Your task to perform on an android device: show emergency info Image 0: 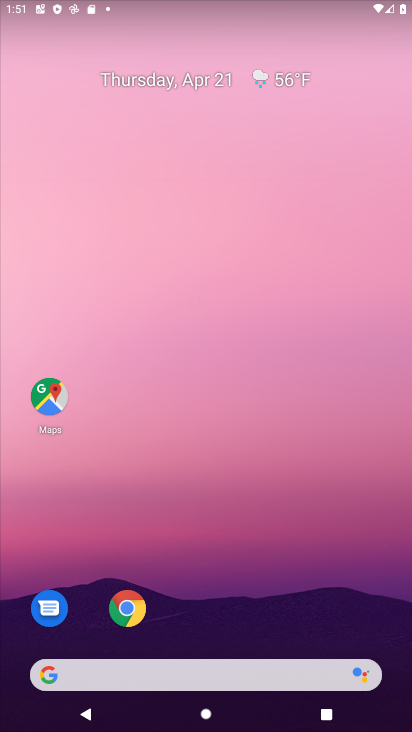
Step 0: drag from (247, 323) to (240, 76)
Your task to perform on an android device: show emergency info Image 1: 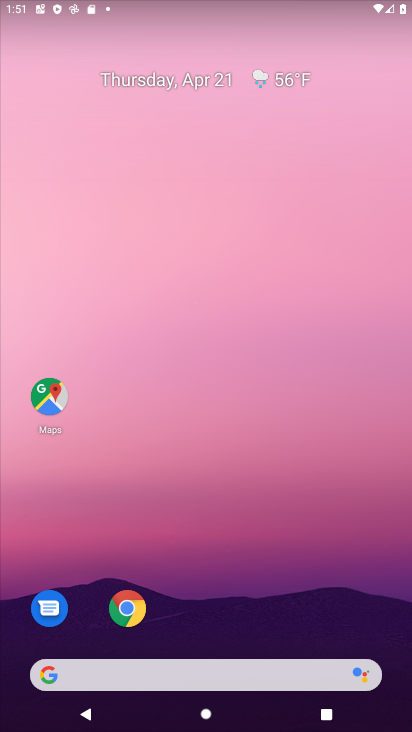
Step 1: drag from (286, 422) to (279, 0)
Your task to perform on an android device: show emergency info Image 2: 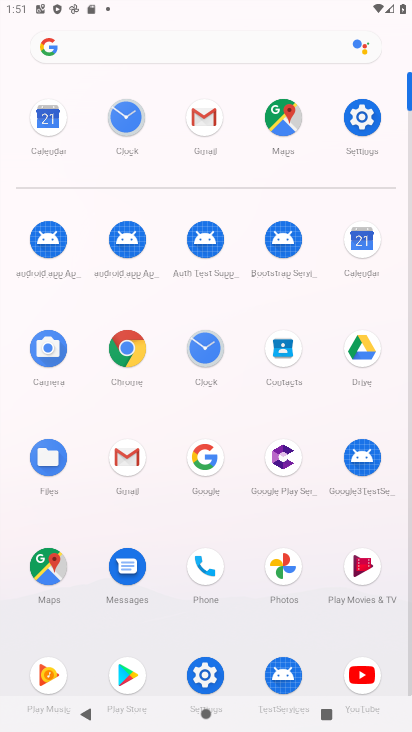
Step 2: click (354, 118)
Your task to perform on an android device: show emergency info Image 3: 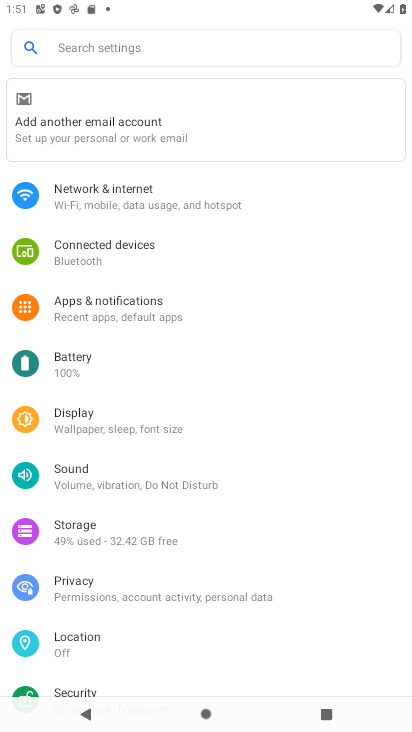
Step 3: drag from (307, 555) to (256, 155)
Your task to perform on an android device: show emergency info Image 4: 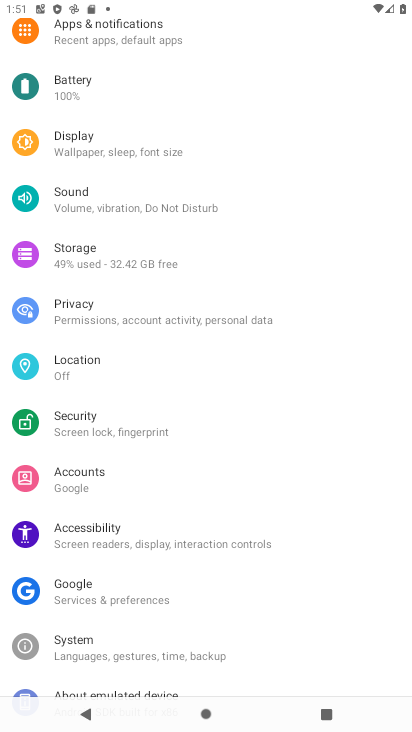
Step 4: drag from (258, 504) to (248, 104)
Your task to perform on an android device: show emergency info Image 5: 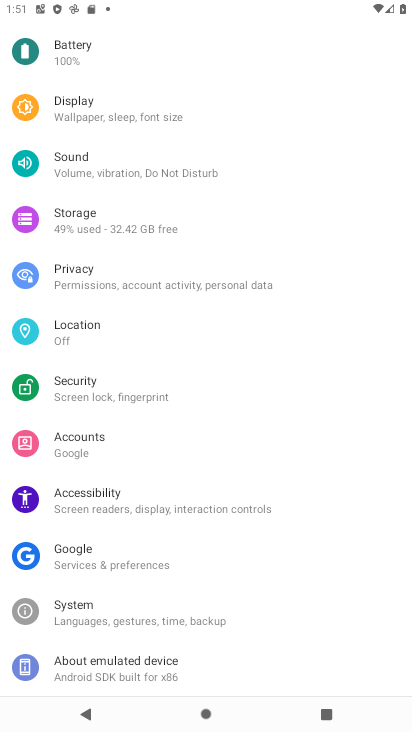
Step 5: click (177, 658)
Your task to perform on an android device: show emergency info Image 6: 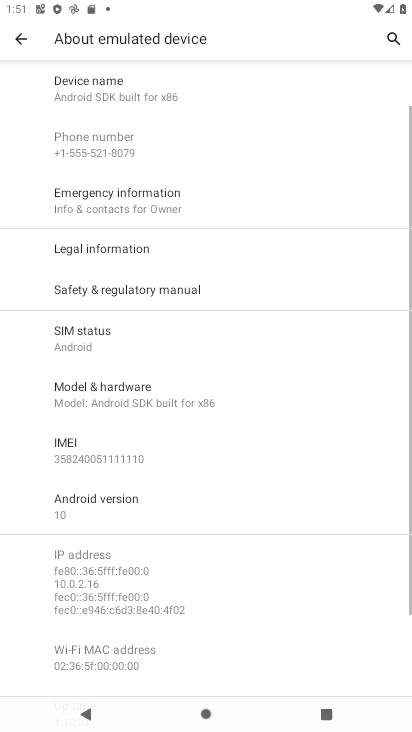
Step 6: click (132, 209)
Your task to perform on an android device: show emergency info Image 7: 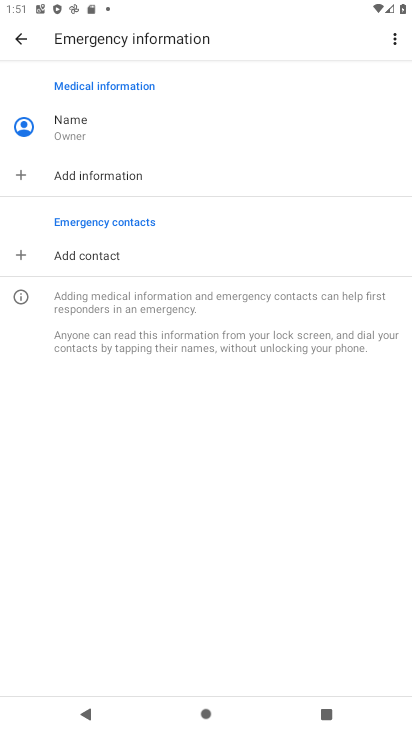
Step 7: task complete